Your task to perform on an android device: search for starred emails in the gmail app Image 0: 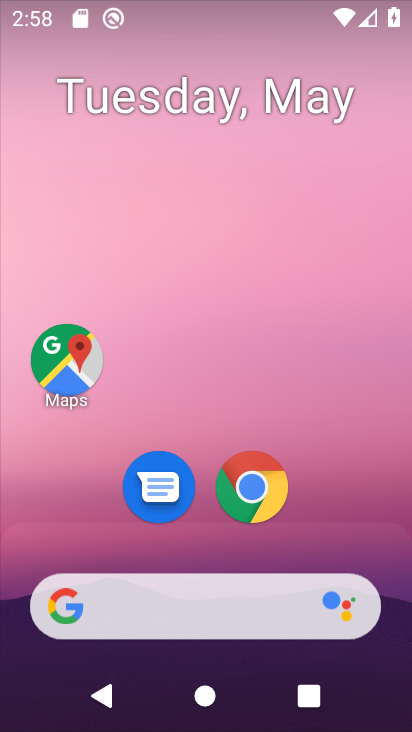
Step 0: drag from (82, 547) to (240, 79)
Your task to perform on an android device: search for starred emails in the gmail app Image 1: 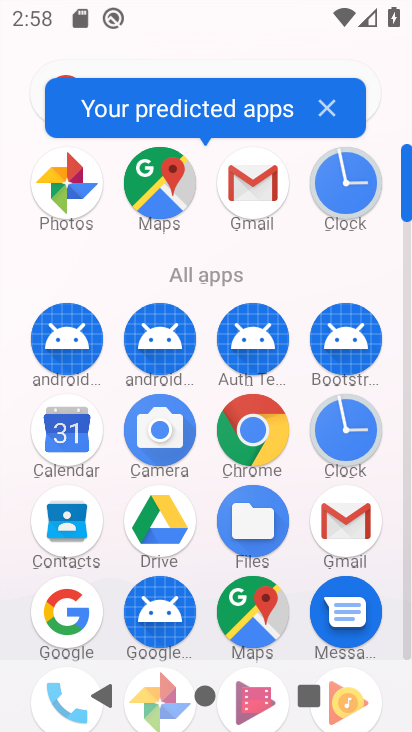
Step 1: click (345, 522)
Your task to perform on an android device: search for starred emails in the gmail app Image 2: 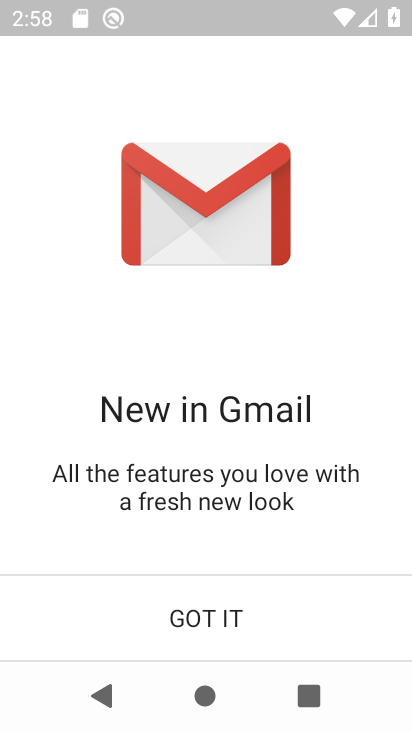
Step 2: click (197, 610)
Your task to perform on an android device: search for starred emails in the gmail app Image 3: 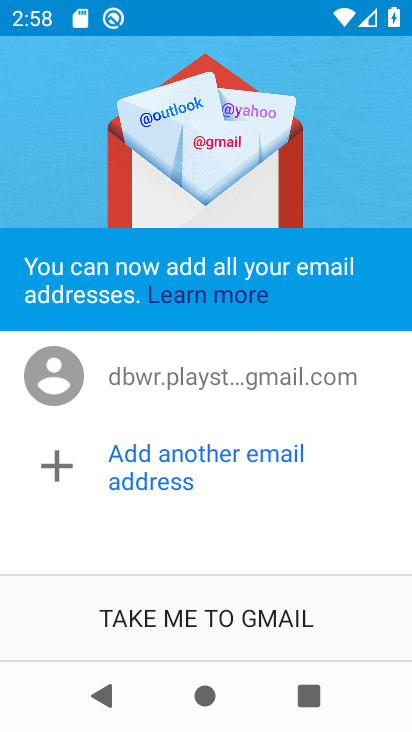
Step 3: click (207, 622)
Your task to perform on an android device: search for starred emails in the gmail app Image 4: 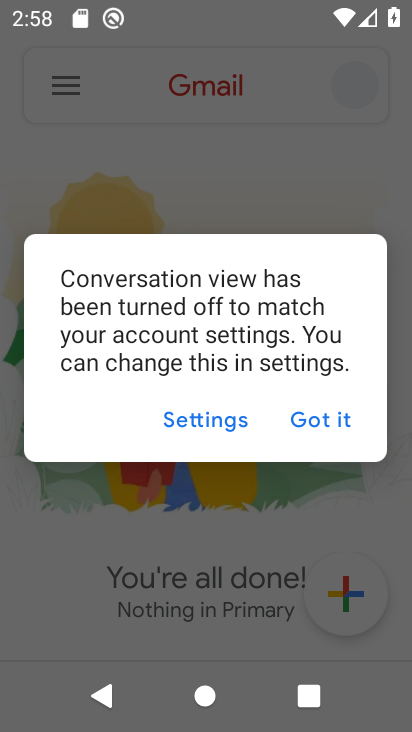
Step 4: click (348, 432)
Your task to perform on an android device: search for starred emails in the gmail app Image 5: 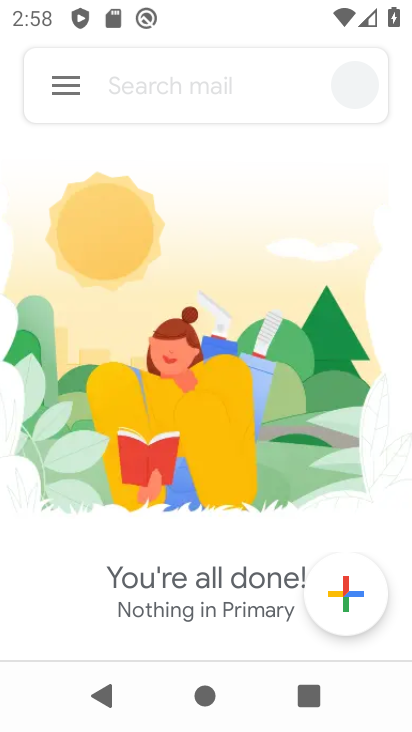
Step 5: click (76, 74)
Your task to perform on an android device: search for starred emails in the gmail app Image 6: 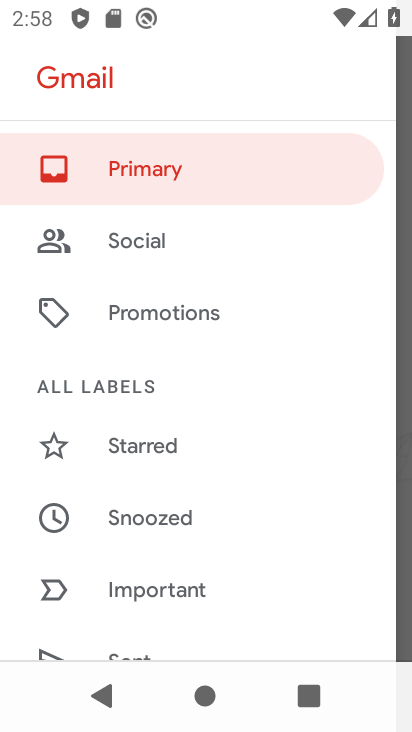
Step 6: click (211, 455)
Your task to perform on an android device: search for starred emails in the gmail app Image 7: 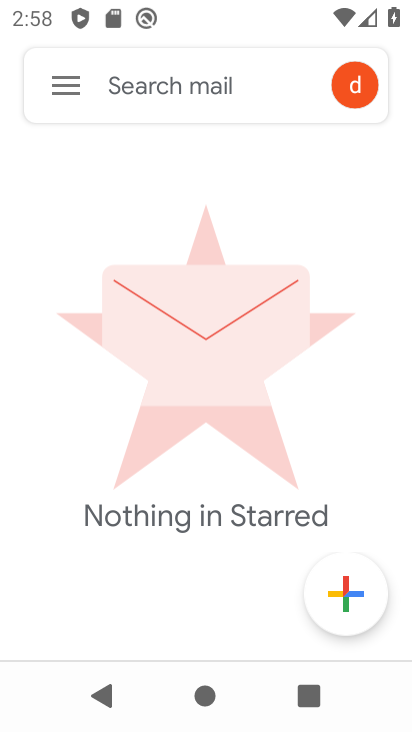
Step 7: task complete